Your task to perform on an android device: turn on bluetooth scan Image 0: 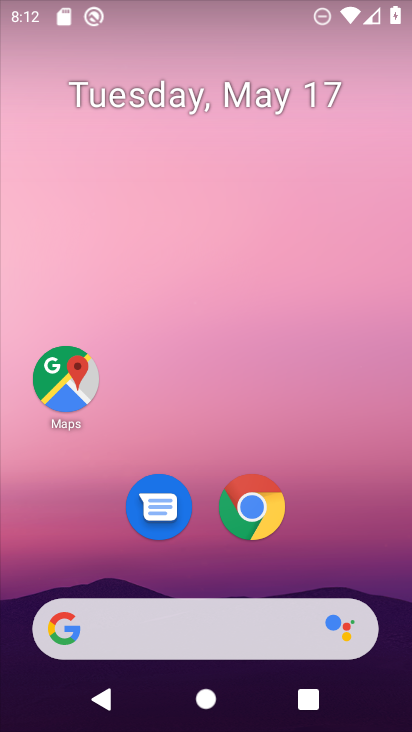
Step 0: drag from (389, 585) to (399, 550)
Your task to perform on an android device: turn on bluetooth scan Image 1: 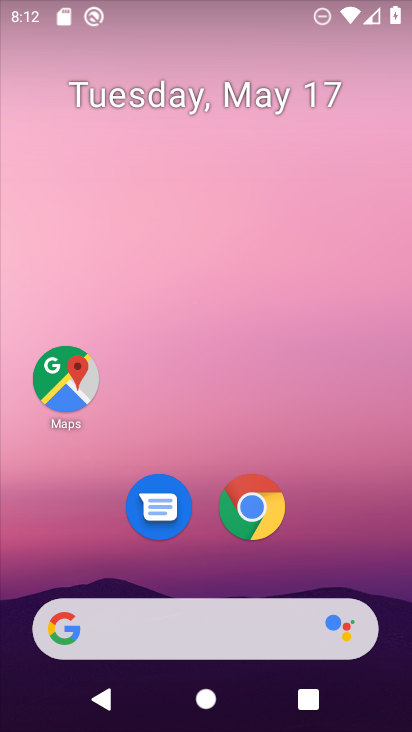
Step 1: drag from (351, 583) to (328, 9)
Your task to perform on an android device: turn on bluetooth scan Image 2: 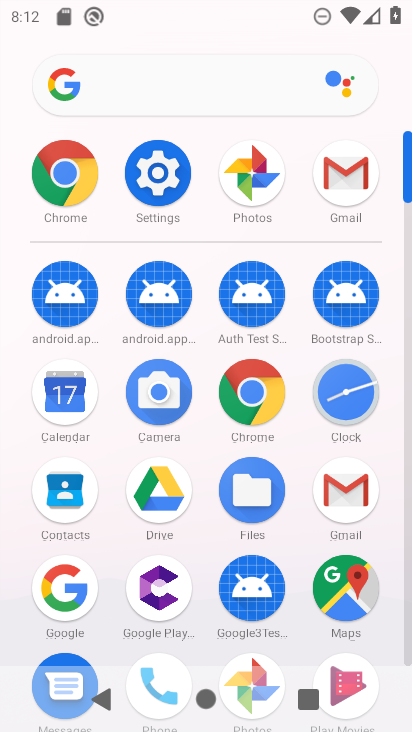
Step 2: click (156, 178)
Your task to perform on an android device: turn on bluetooth scan Image 3: 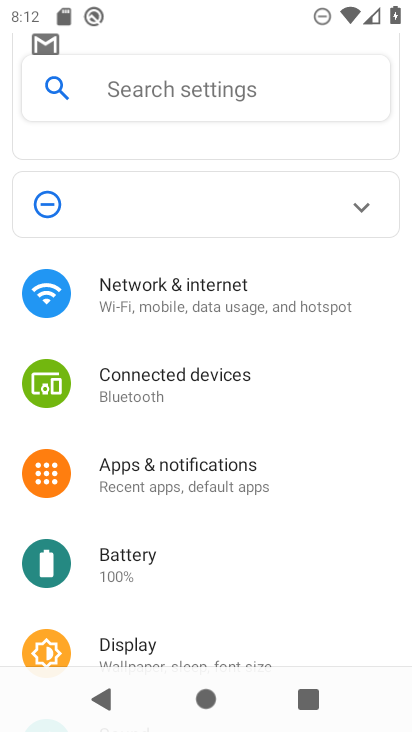
Step 3: drag from (260, 549) to (244, 91)
Your task to perform on an android device: turn on bluetooth scan Image 4: 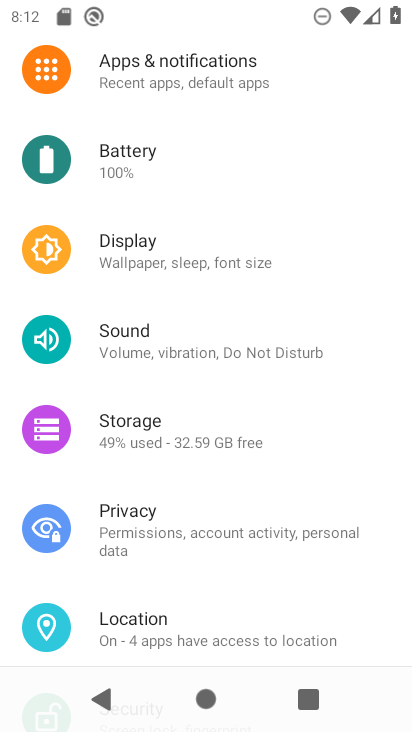
Step 4: click (135, 623)
Your task to perform on an android device: turn on bluetooth scan Image 5: 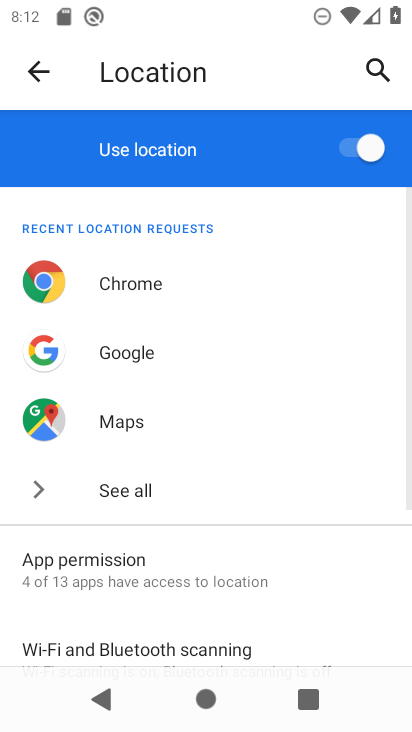
Step 5: drag from (314, 575) to (314, 186)
Your task to perform on an android device: turn on bluetooth scan Image 6: 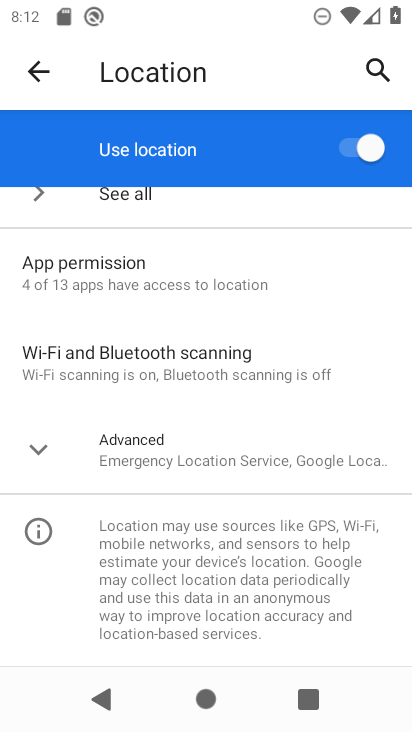
Step 6: click (111, 361)
Your task to perform on an android device: turn on bluetooth scan Image 7: 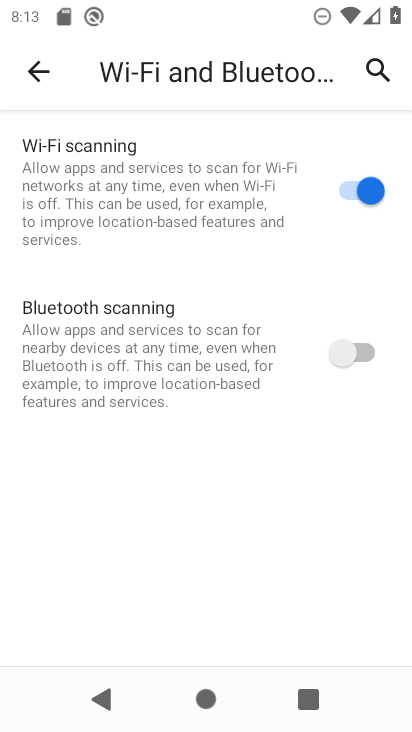
Step 7: click (354, 356)
Your task to perform on an android device: turn on bluetooth scan Image 8: 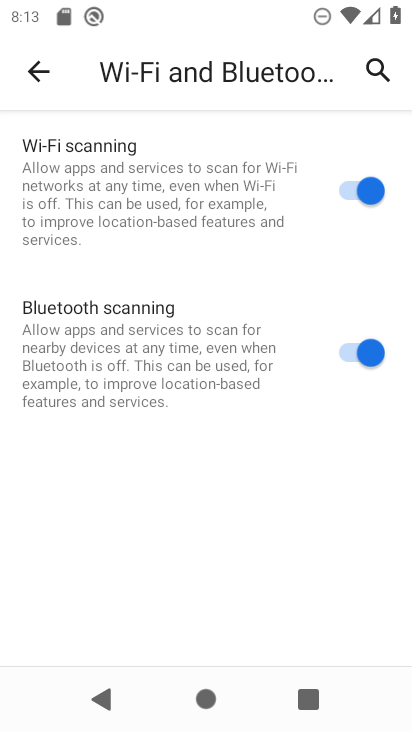
Step 8: task complete